Your task to perform on an android device: check storage Image 0: 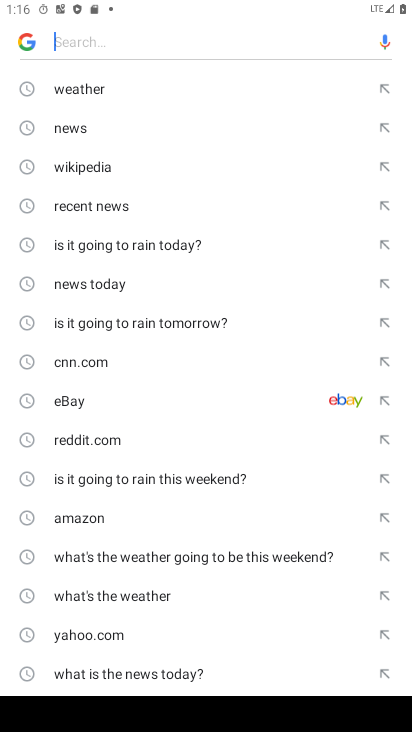
Step 0: press home button
Your task to perform on an android device: check storage Image 1: 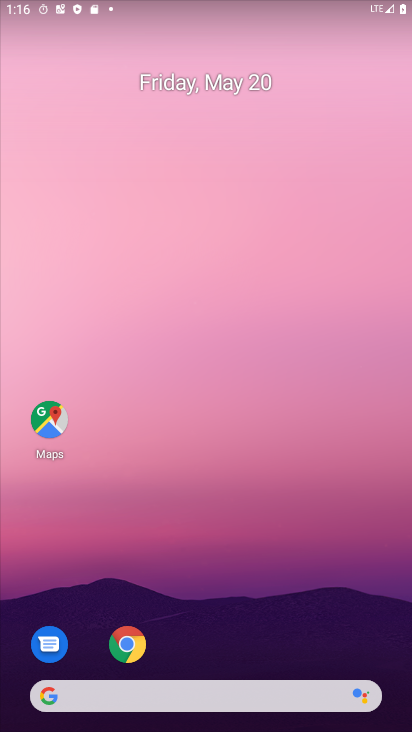
Step 1: drag from (225, 524) to (175, 29)
Your task to perform on an android device: check storage Image 2: 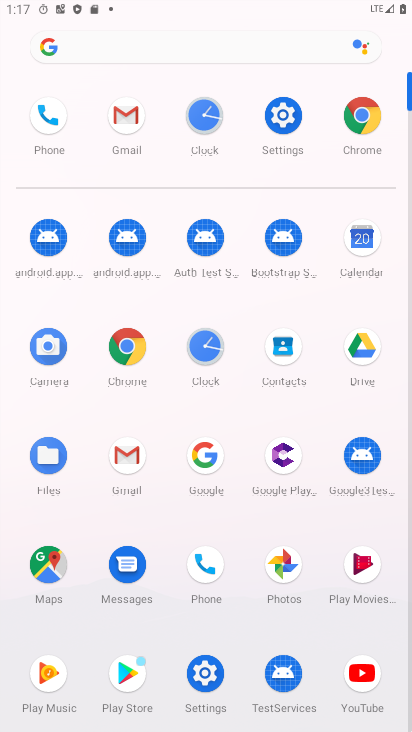
Step 2: click (299, 118)
Your task to perform on an android device: check storage Image 3: 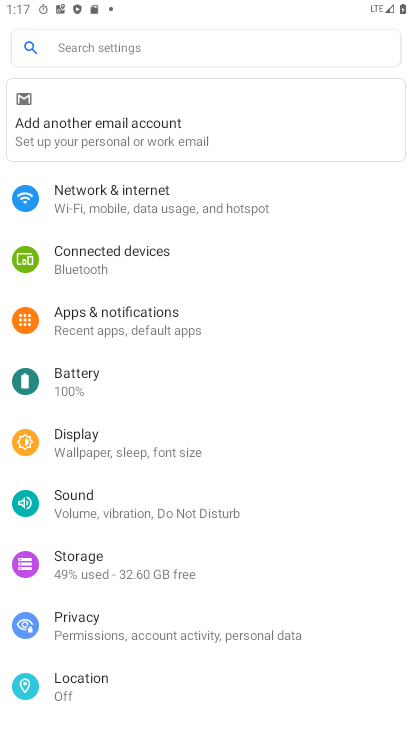
Step 3: click (90, 568)
Your task to perform on an android device: check storage Image 4: 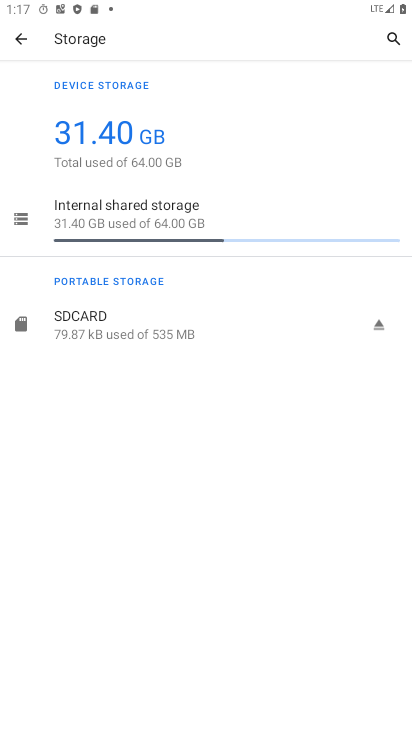
Step 4: click (123, 223)
Your task to perform on an android device: check storage Image 5: 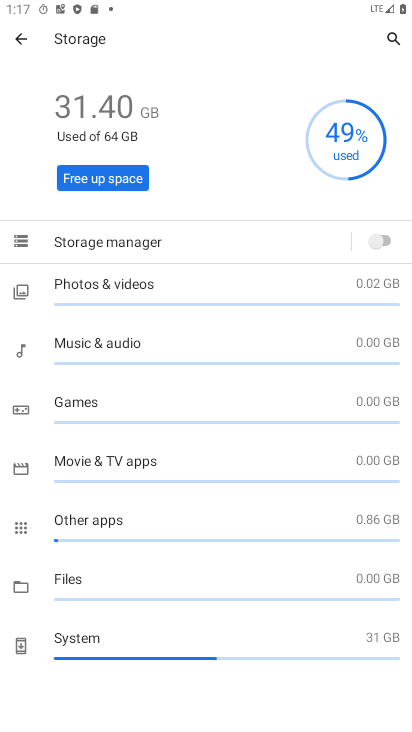
Step 5: task complete